Your task to perform on an android device: set the stopwatch Image 0: 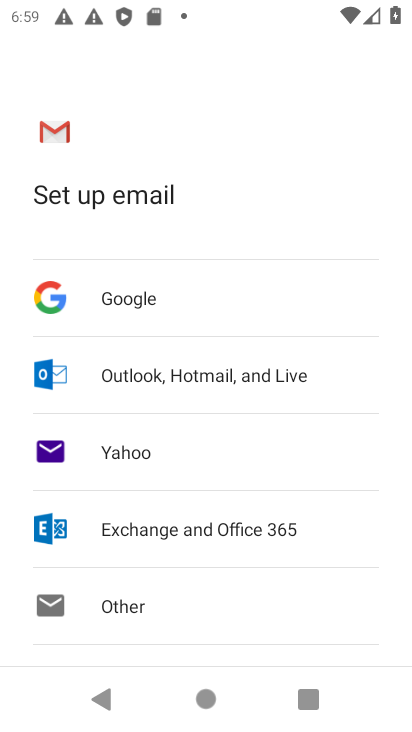
Step 0: press home button
Your task to perform on an android device: set the stopwatch Image 1: 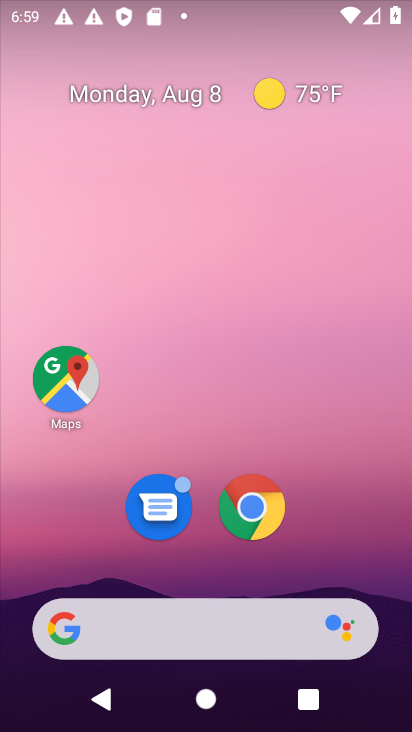
Step 1: drag from (265, 639) to (270, 182)
Your task to perform on an android device: set the stopwatch Image 2: 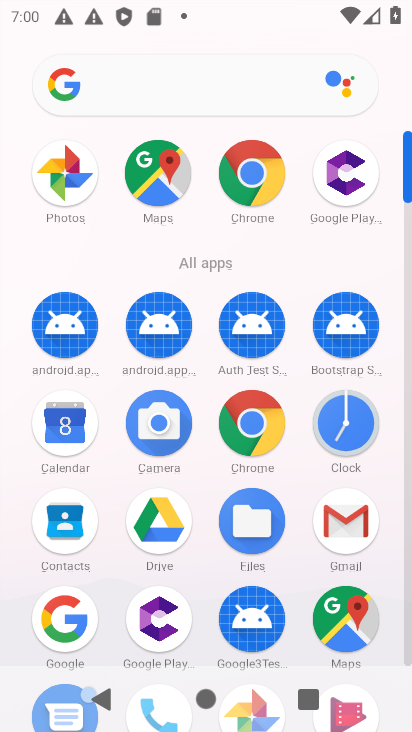
Step 2: click (344, 425)
Your task to perform on an android device: set the stopwatch Image 3: 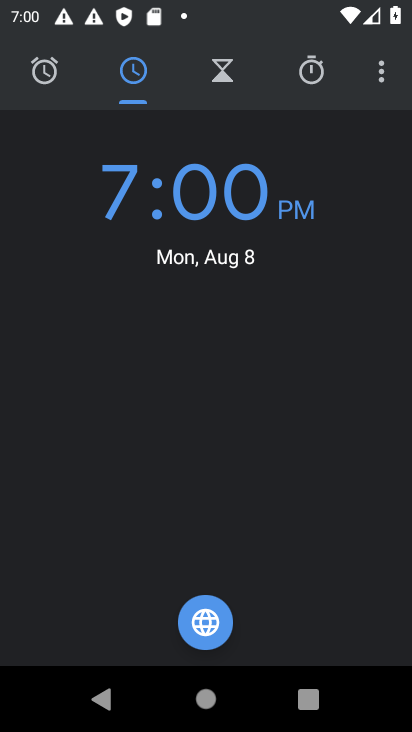
Step 3: click (298, 82)
Your task to perform on an android device: set the stopwatch Image 4: 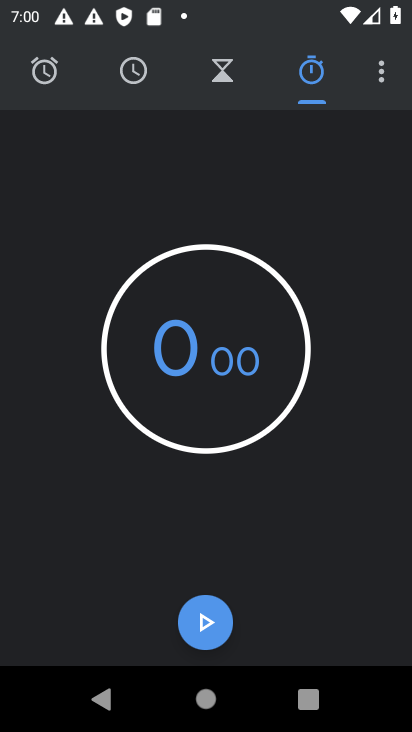
Step 4: click (195, 632)
Your task to perform on an android device: set the stopwatch Image 5: 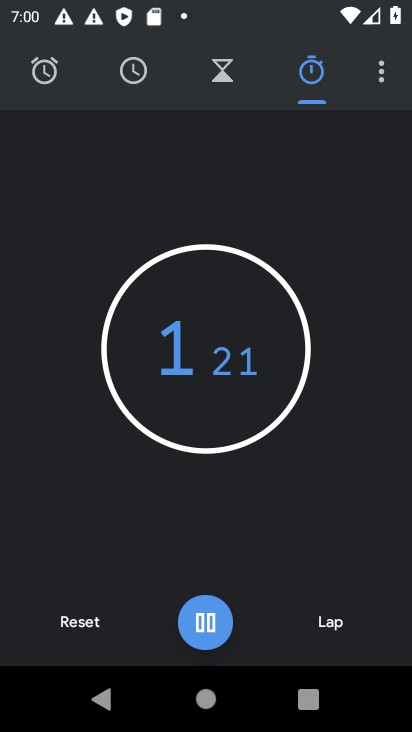
Step 5: click (195, 632)
Your task to perform on an android device: set the stopwatch Image 6: 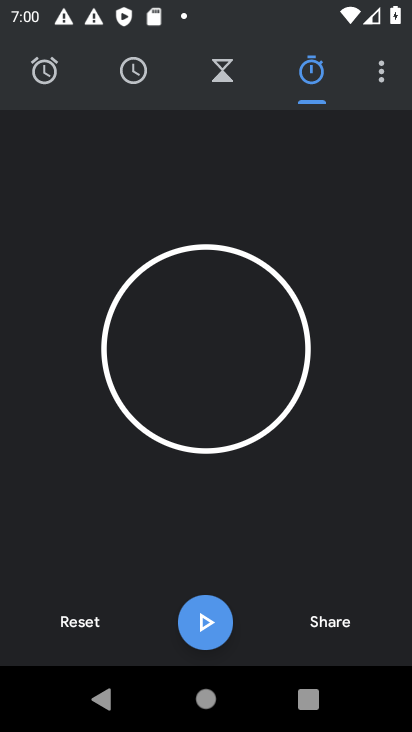
Step 6: task complete